Your task to perform on an android device: toggle airplane mode Image 0: 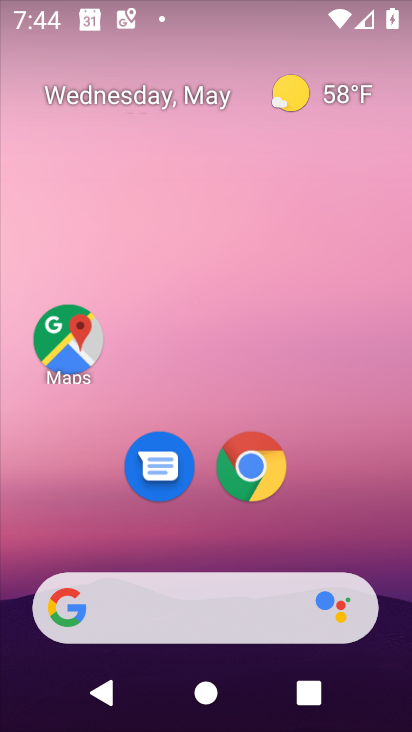
Step 0: drag from (204, 539) to (263, 14)
Your task to perform on an android device: toggle airplane mode Image 1: 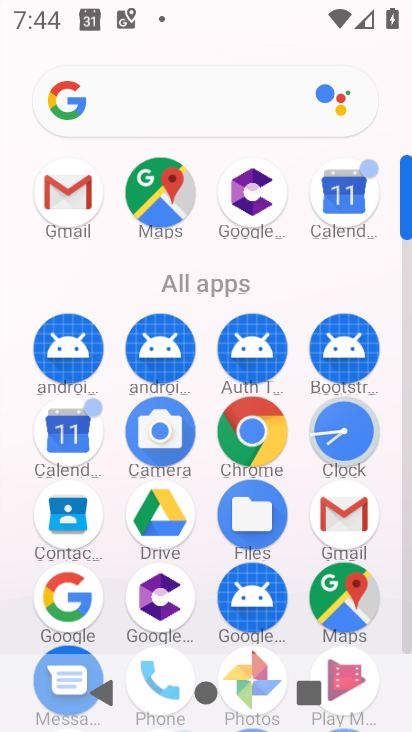
Step 1: drag from (203, 401) to (246, 87)
Your task to perform on an android device: toggle airplane mode Image 2: 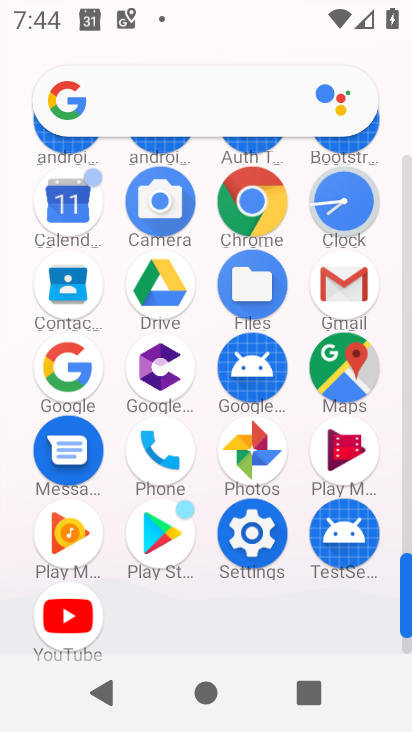
Step 2: click (250, 530)
Your task to perform on an android device: toggle airplane mode Image 3: 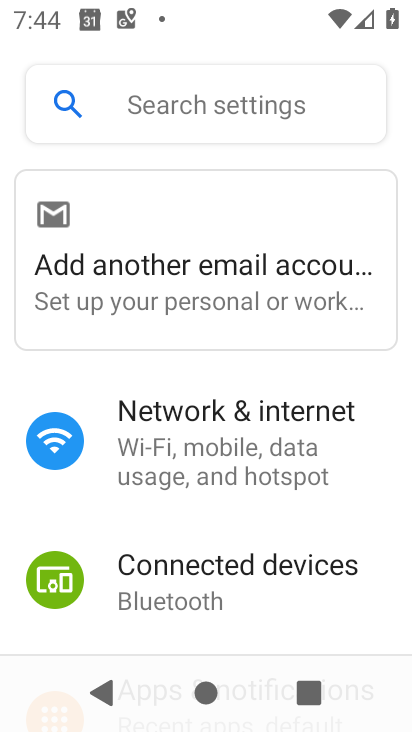
Step 3: click (207, 451)
Your task to perform on an android device: toggle airplane mode Image 4: 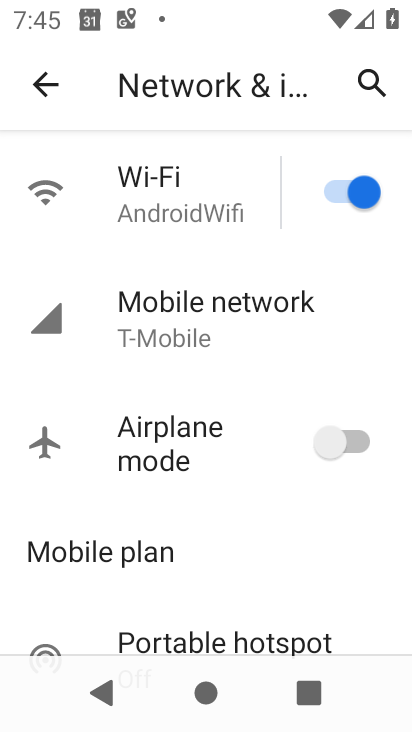
Step 4: click (338, 451)
Your task to perform on an android device: toggle airplane mode Image 5: 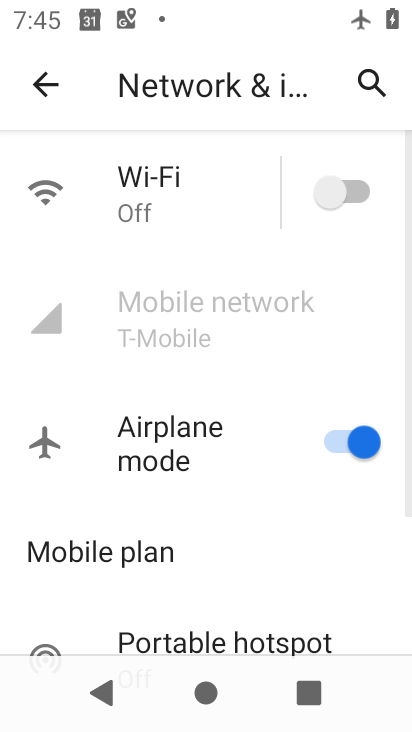
Step 5: task complete